Your task to perform on an android device: Open Google Maps and go to "Timeline" Image 0: 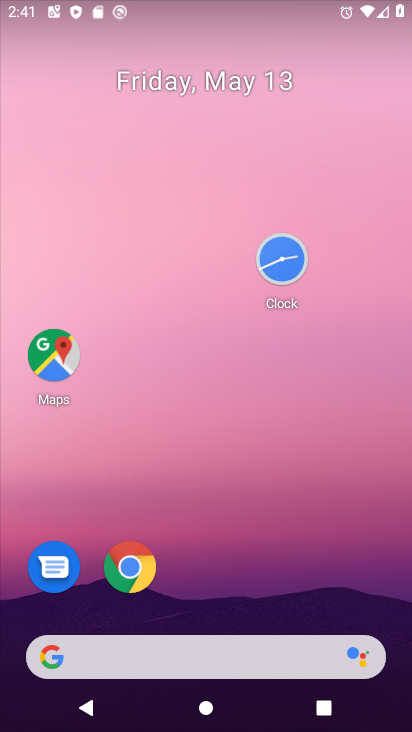
Step 0: drag from (335, 550) to (373, 75)
Your task to perform on an android device: Open Google Maps and go to "Timeline" Image 1: 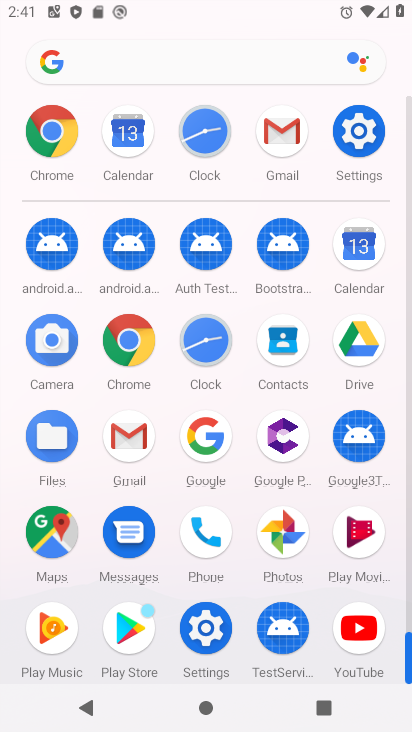
Step 1: click (63, 551)
Your task to perform on an android device: Open Google Maps and go to "Timeline" Image 2: 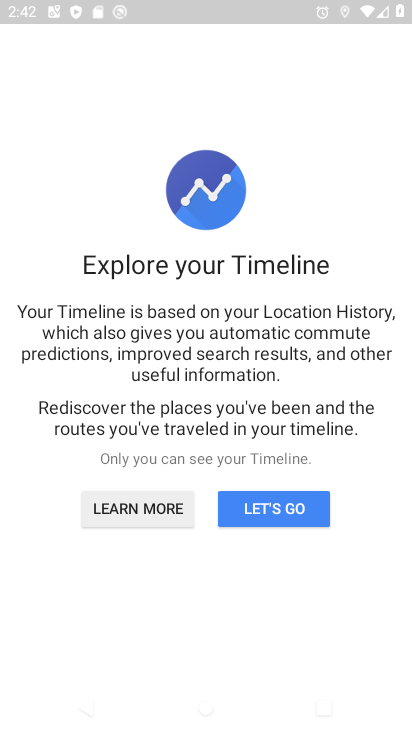
Step 2: click (272, 498)
Your task to perform on an android device: Open Google Maps and go to "Timeline" Image 3: 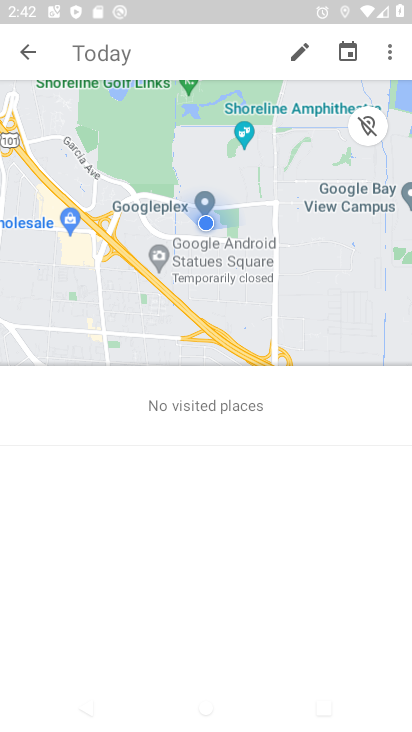
Step 3: task complete